Your task to perform on an android device: Go to Google maps Image 0: 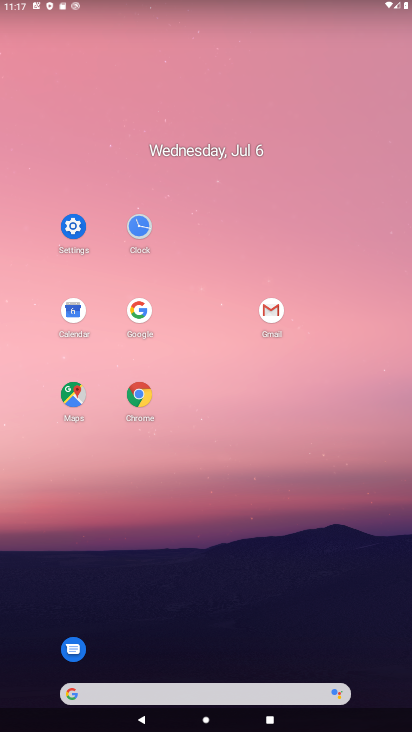
Step 0: click (64, 399)
Your task to perform on an android device: Go to Google maps Image 1: 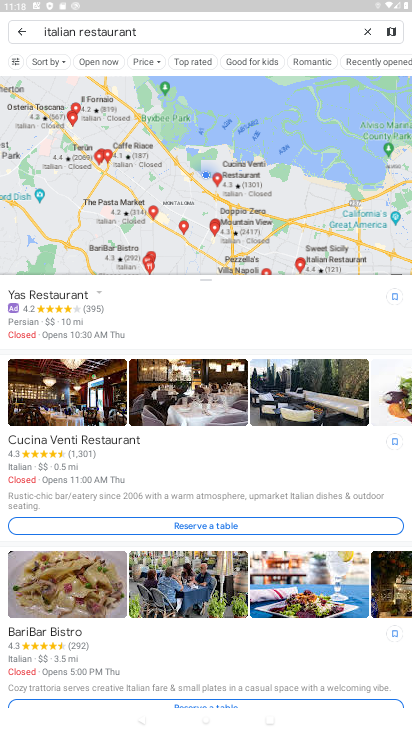
Step 1: task complete